Your task to perform on an android device: move a message to another label in the gmail app Image 0: 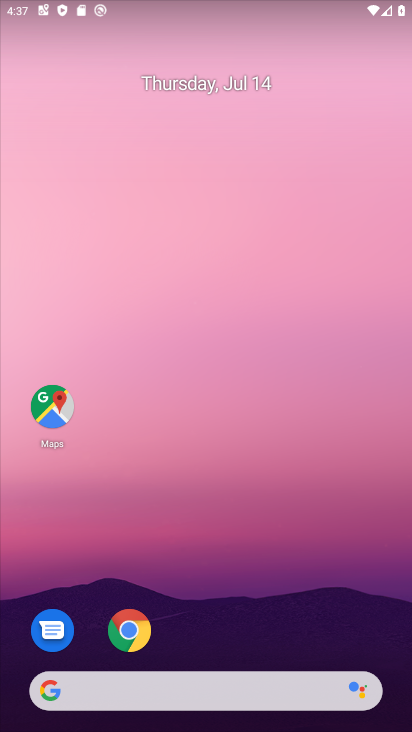
Step 0: drag from (294, 634) to (304, 188)
Your task to perform on an android device: move a message to another label in the gmail app Image 1: 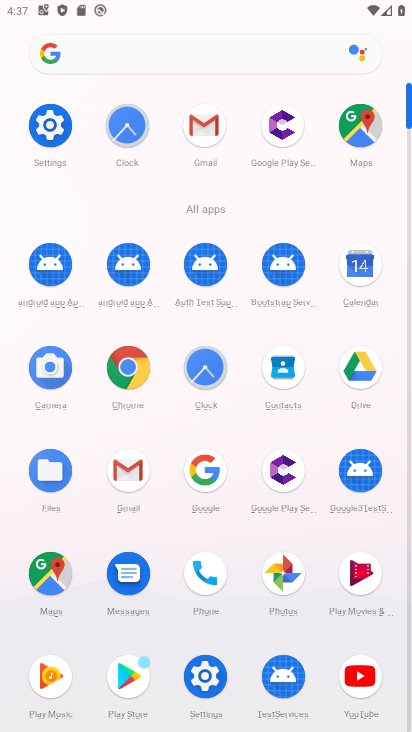
Step 1: click (197, 122)
Your task to perform on an android device: move a message to another label in the gmail app Image 2: 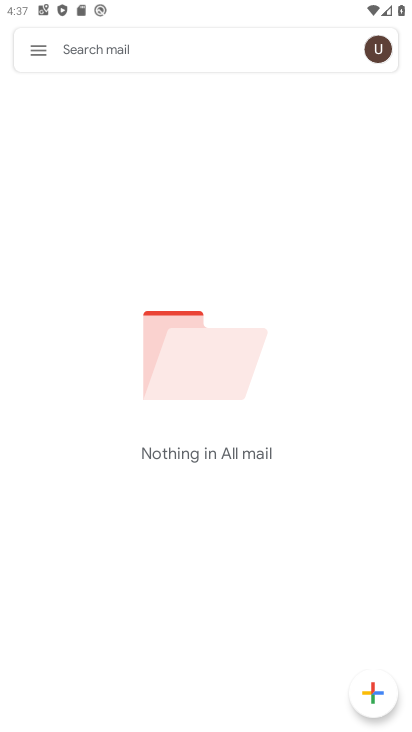
Step 2: task complete